Your task to perform on an android device: Check the news Image 0: 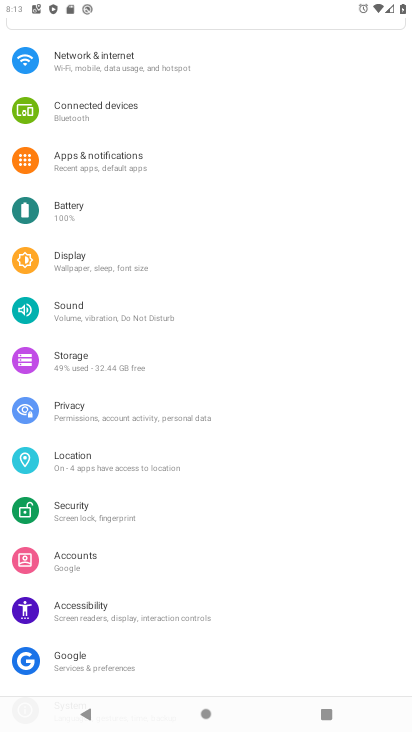
Step 0: press home button
Your task to perform on an android device: Check the news Image 1: 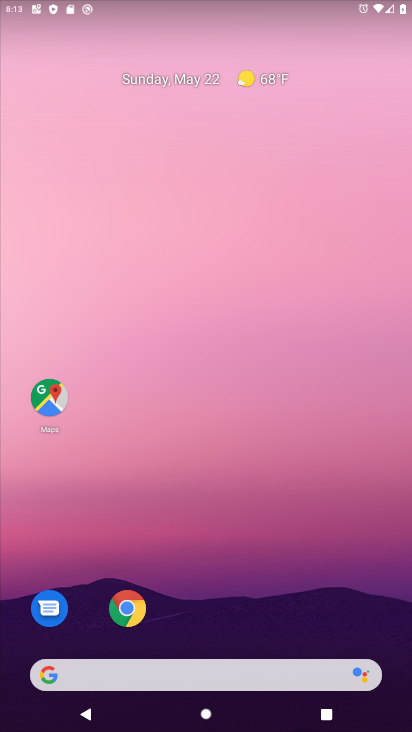
Step 1: task complete